Your task to perform on an android device: turn on bluetooth scan Image 0: 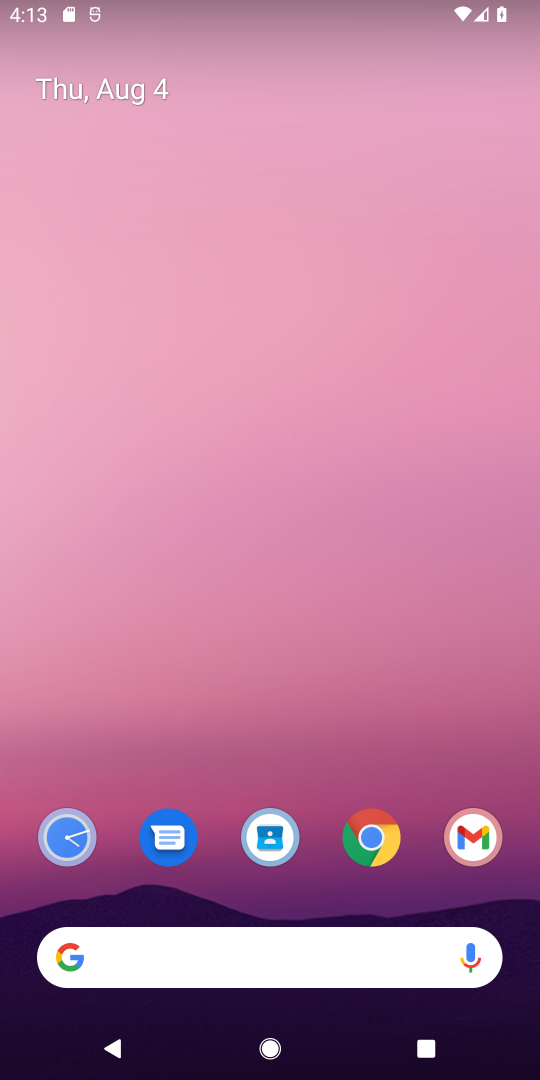
Step 0: drag from (314, 806) to (334, 3)
Your task to perform on an android device: turn on bluetooth scan Image 1: 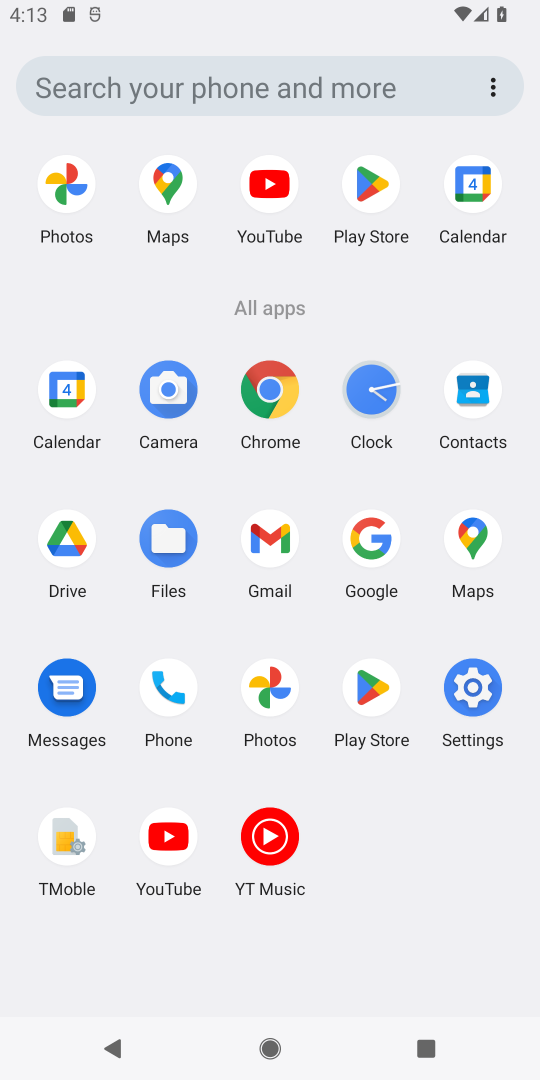
Step 1: click (468, 682)
Your task to perform on an android device: turn on bluetooth scan Image 2: 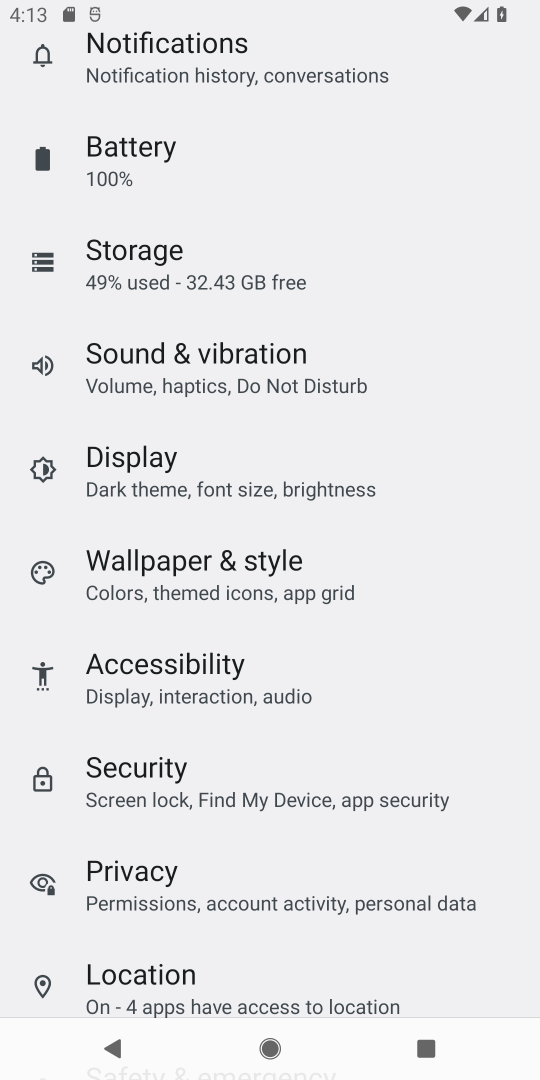
Step 2: click (222, 971)
Your task to perform on an android device: turn on bluetooth scan Image 3: 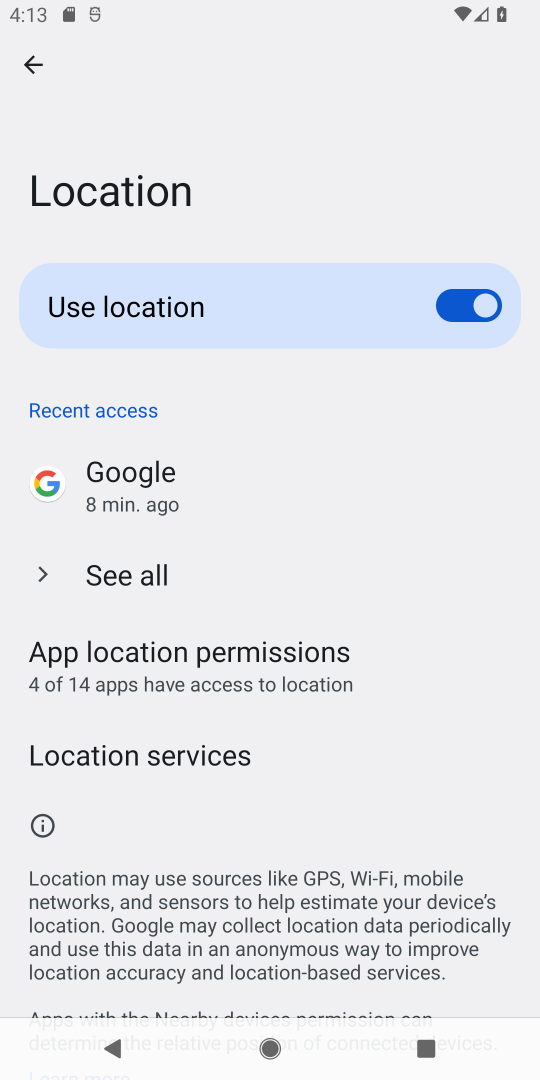
Step 3: drag from (269, 803) to (345, 317)
Your task to perform on an android device: turn on bluetooth scan Image 4: 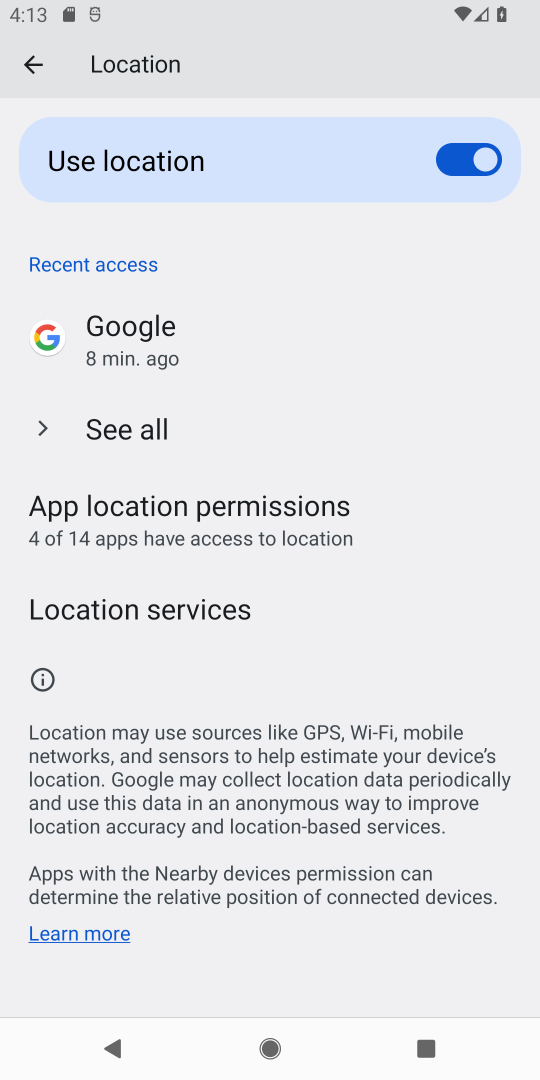
Step 4: drag from (304, 427) to (288, 685)
Your task to perform on an android device: turn on bluetooth scan Image 5: 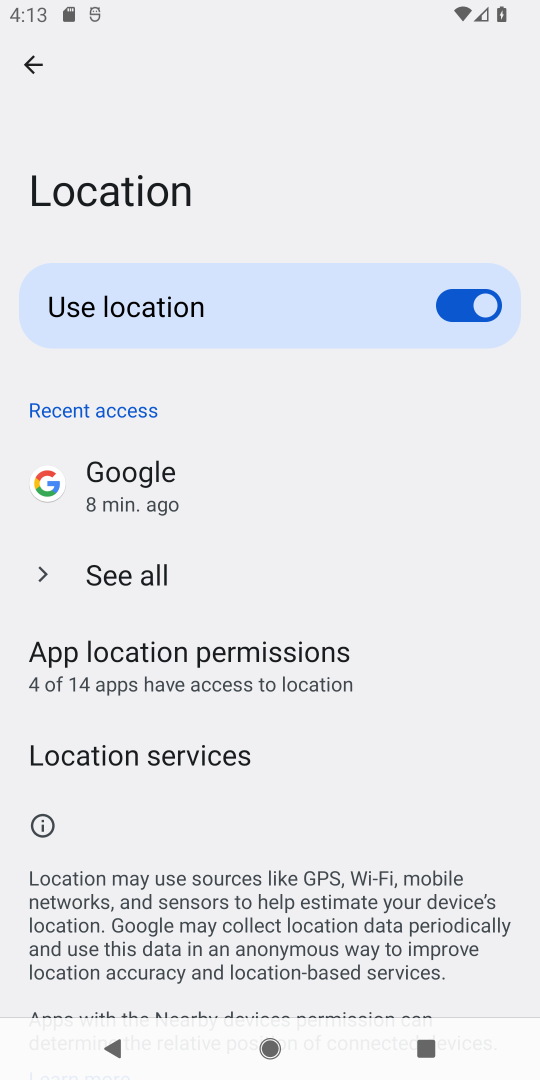
Step 5: click (63, 578)
Your task to perform on an android device: turn on bluetooth scan Image 6: 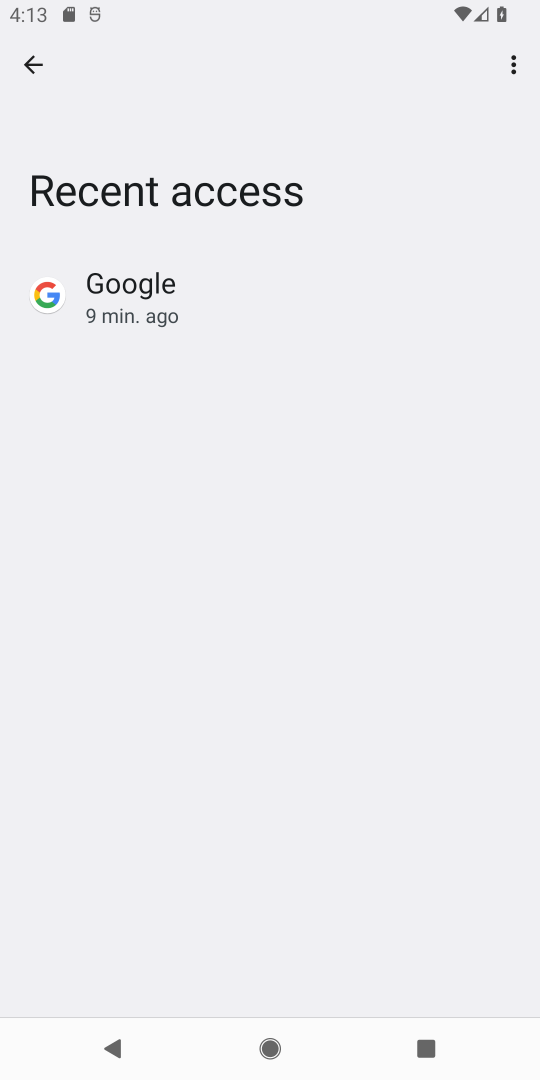
Step 6: click (518, 63)
Your task to perform on an android device: turn on bluetooth scan Image 7: 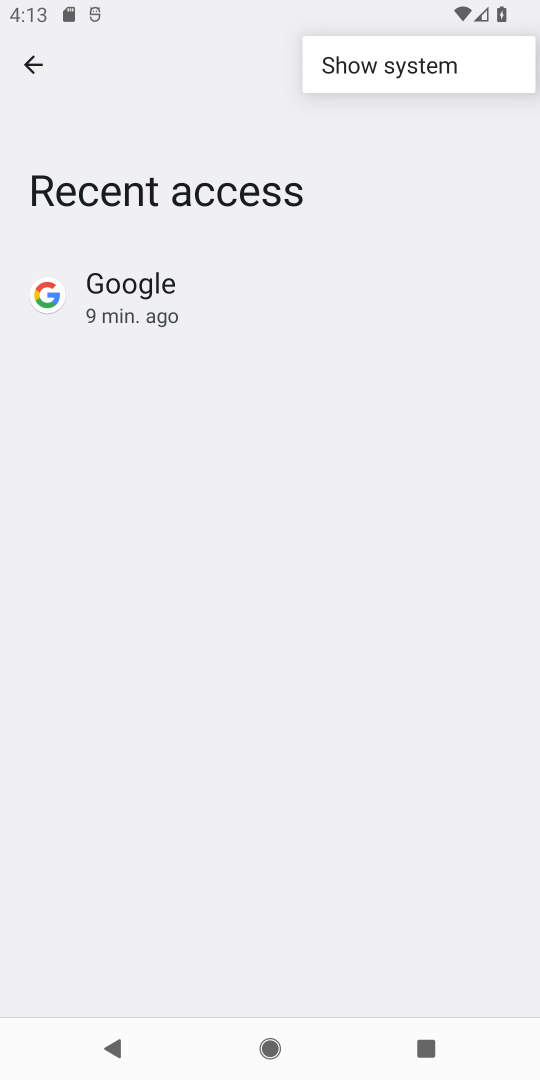
Step 7: click (386, 62)
Your task to perform on an android device: turn on bluetooth scan Image 8: 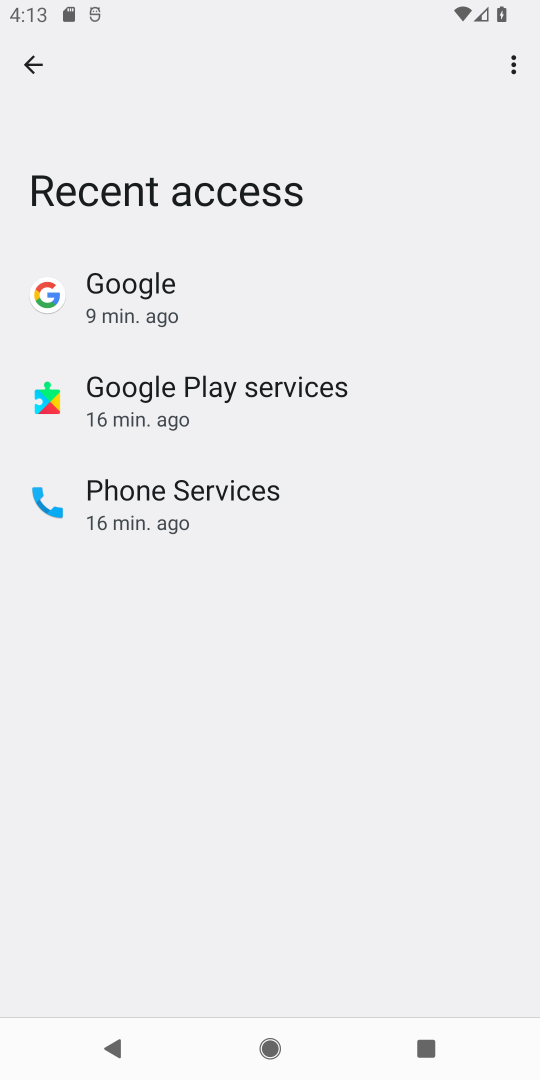
Step 8: click (30, 60)
Your task to perform on an android device: turn on bluetooth scan Image 9: 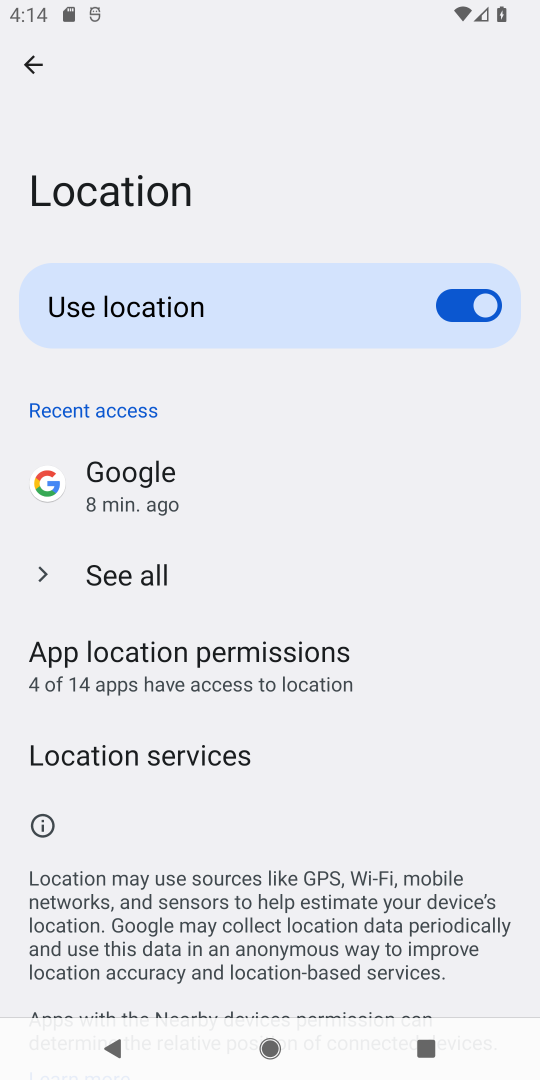
Step 9: click (28, 73)
Your task to perform on an android device: turn on bluetooth scan Image 10: 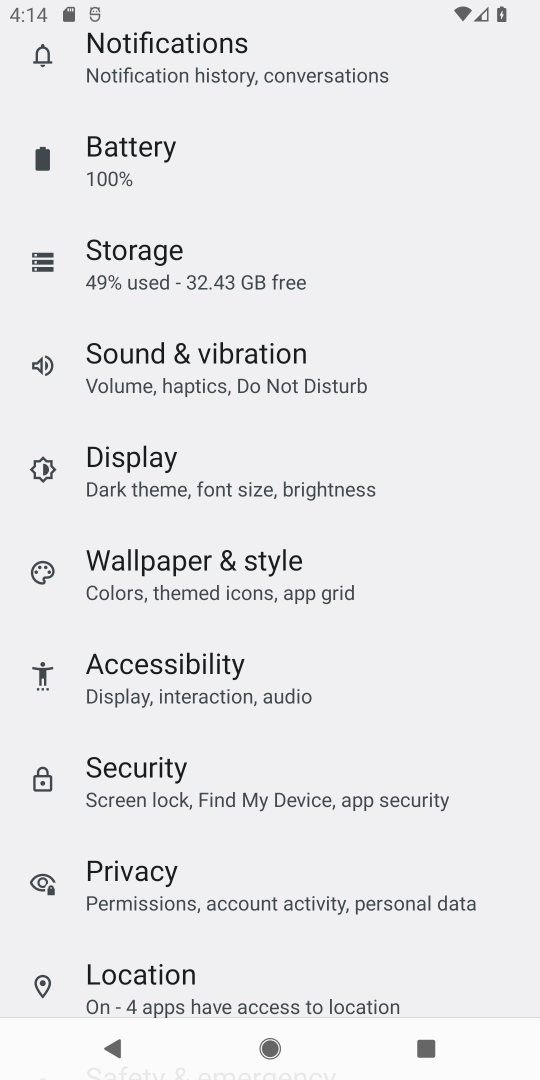
Step 10: drag from (290, 781) to (347, 250)
Your task to perform on an android device: turn on bluetooth scan Image 11: 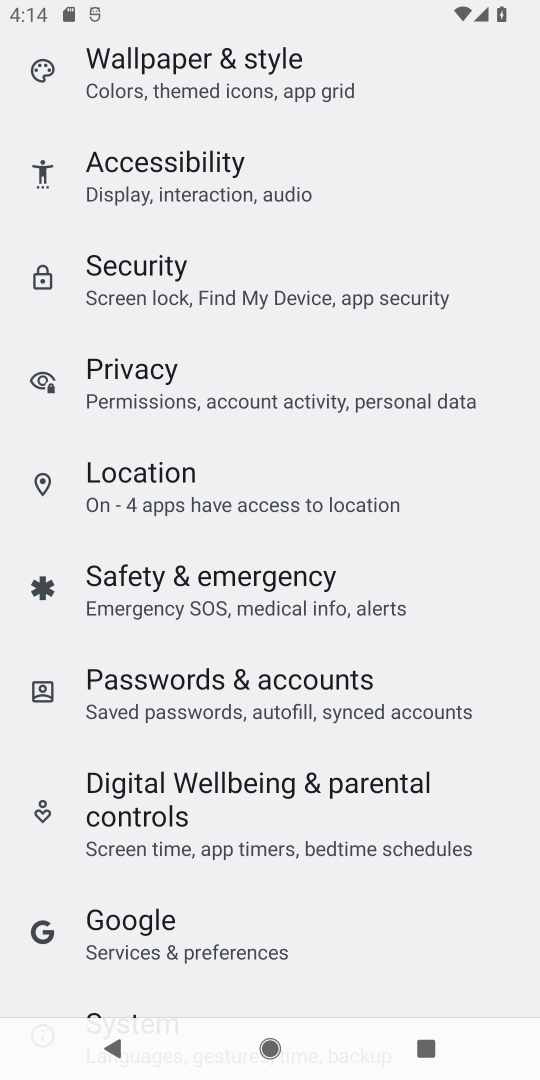
Step 11: drag from (258, 287) to (290, 979)
Your task to perform on an android device: turn on bluetooth scan Image 12: 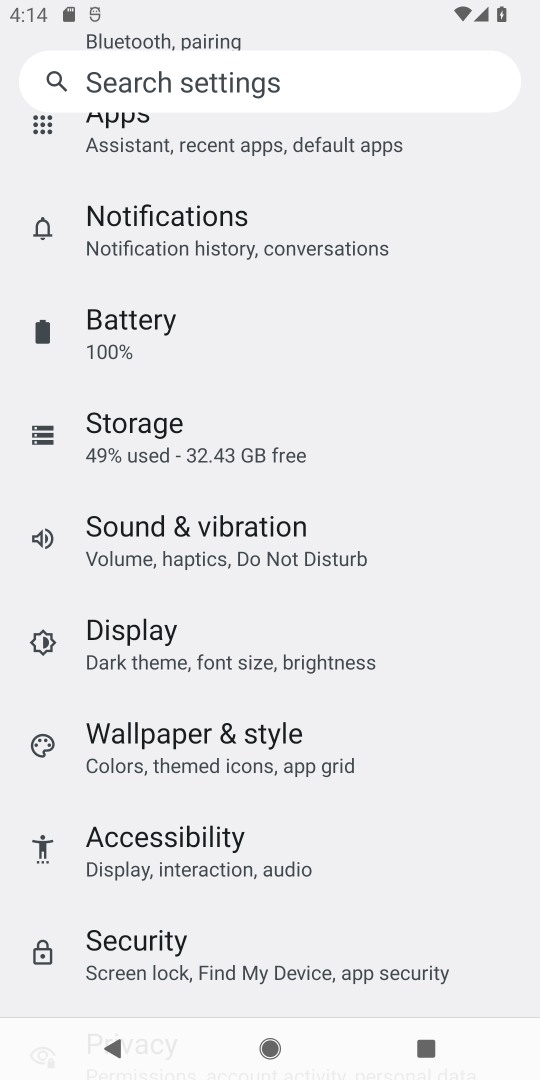
Step 12: click (183, 78)
Your task to perform on an android device: turn on bluetooth scan Image 13: 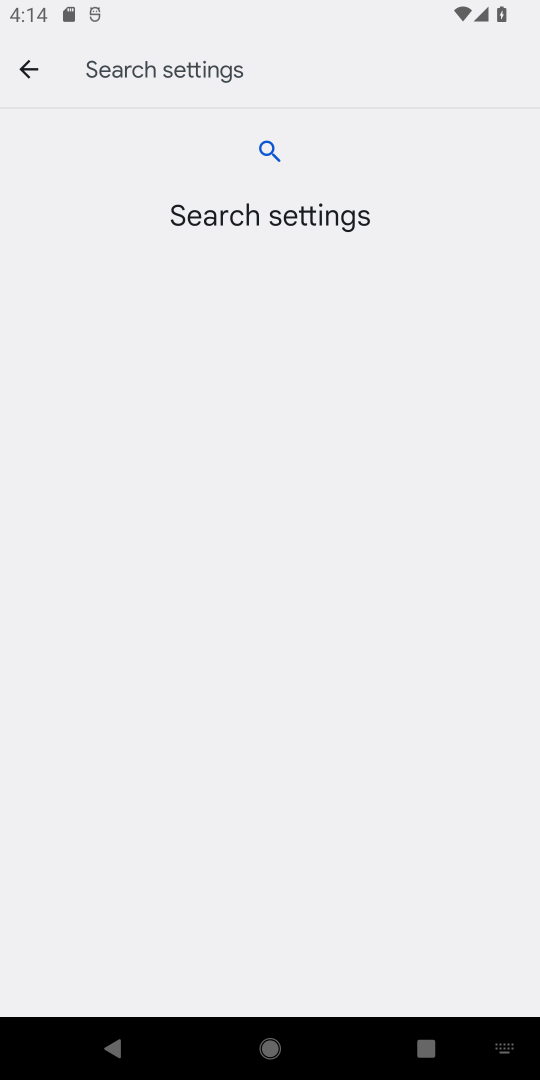
Step 13: type "bluetooth scan"
Your task to perform on an android device: turn on bluetooth scan Image 14: 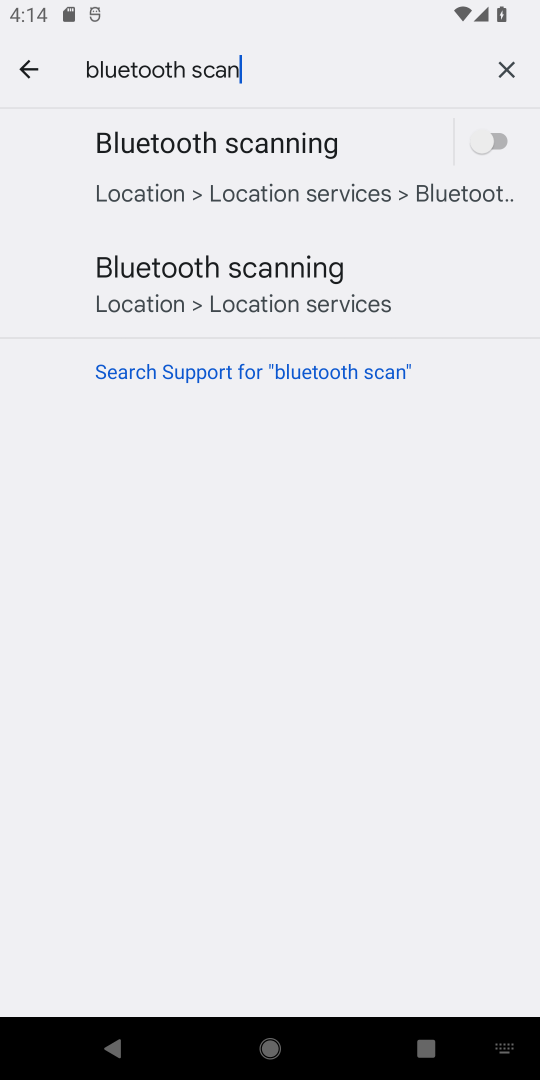
Step 14: click (240, 169)
Your task to perform on an android device: turn on bluetooth scan Image 15: 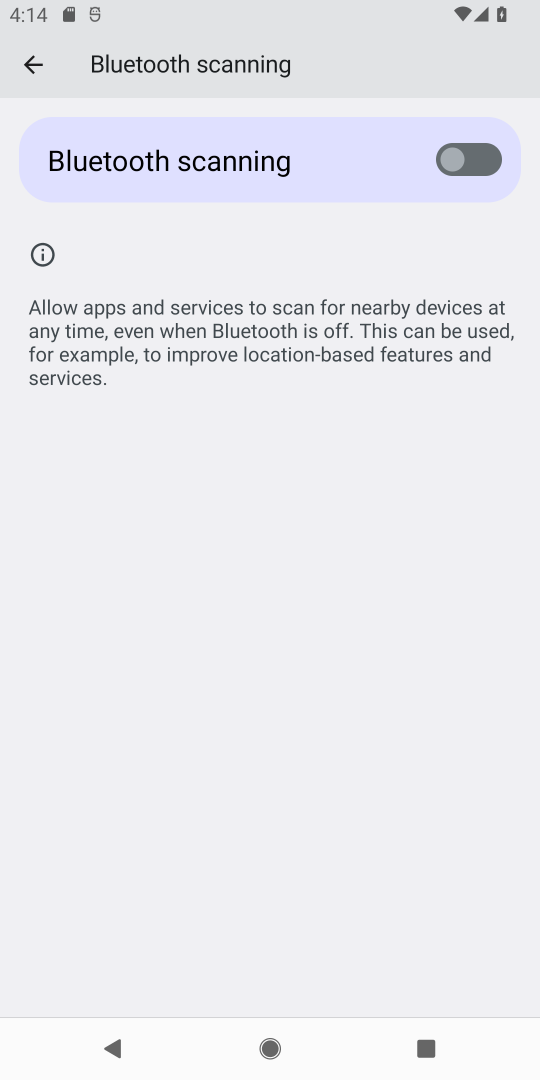
Step 15: click (494, 153)
Your task to perform on an android device: turn on bluetooth scan Image 16: 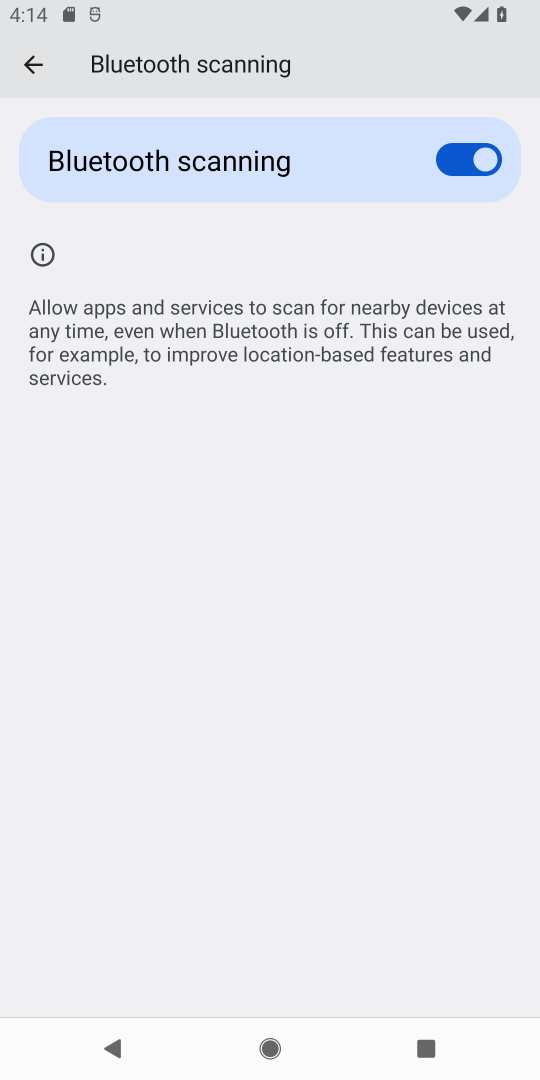
Step 16: task complete